Your task to perform on an android device: Go to privacy settings Image 0: 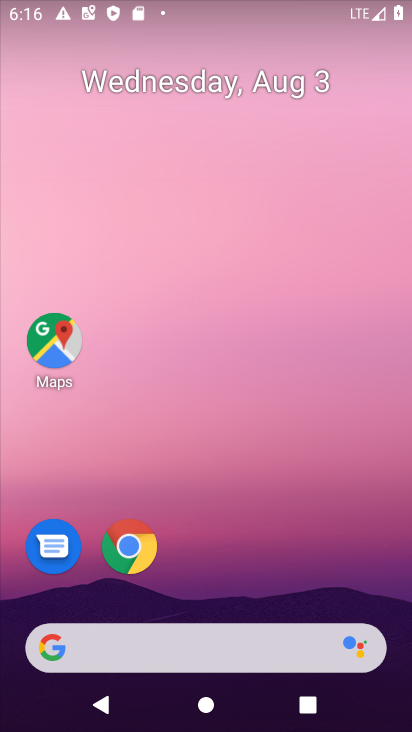
Step 0: press home button
Your task to perform on an android device: Go to privacy settings Image 1: 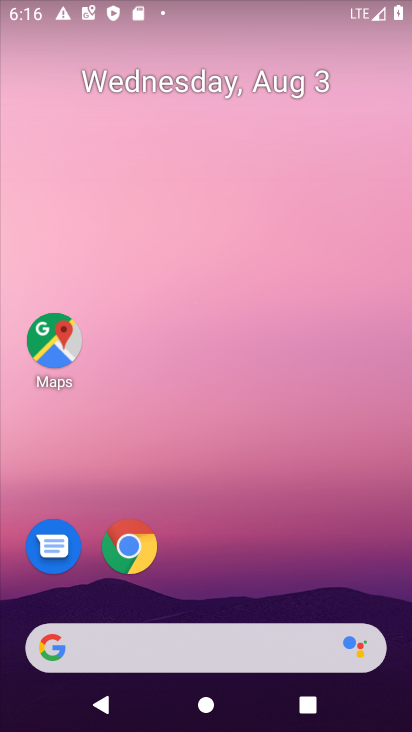
Step 1: drag from (193, 599) to (313, 1)
Your task to perform on an android device: Go to privacy settings Image 2: 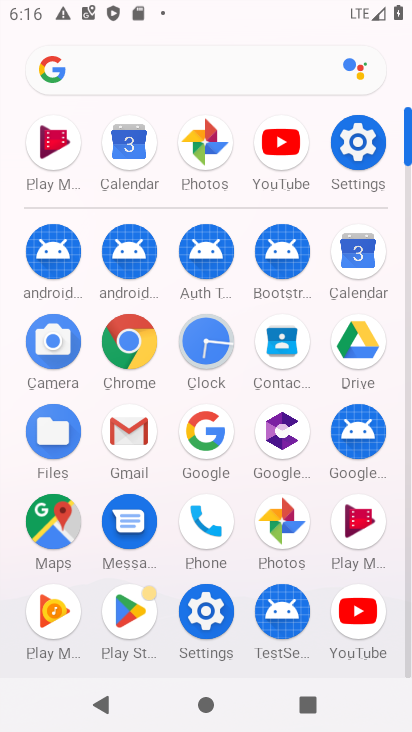
Step 2: click (355, 157)
Your task to perform on an android device: Go to privacy settings Image 3: 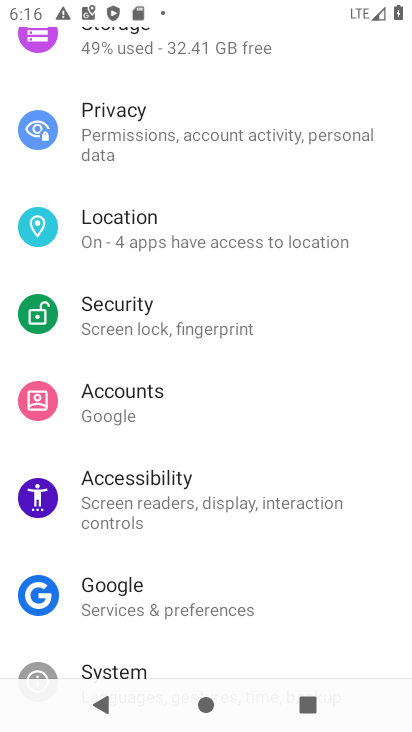
Step 3: click (132, 145)
Your task to perform on an android device: Go to privacy settings Image 4: 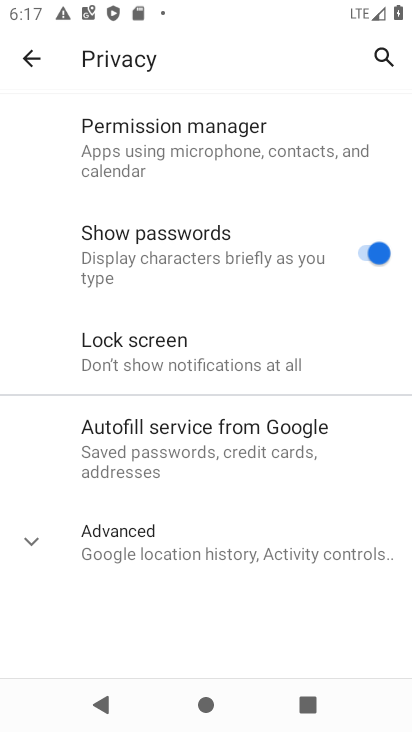
Step 4: task complete